Your task to perform on an android device: toggle sleep mode Image 0: 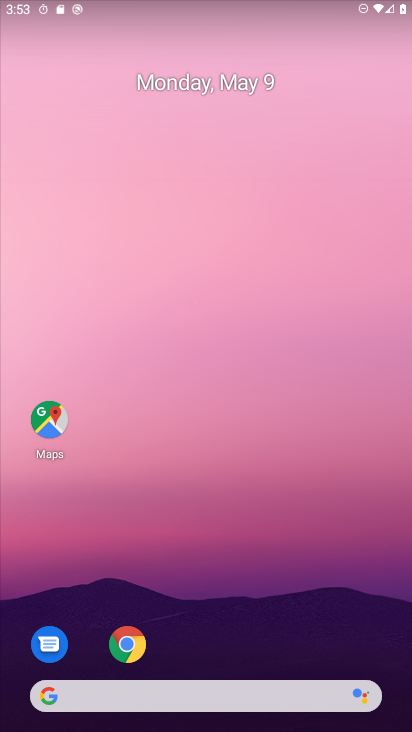
Step 0: drag from (247, 436) to (258, 43)
Your task to perform on an android device: toggle sleep mode Image 1: 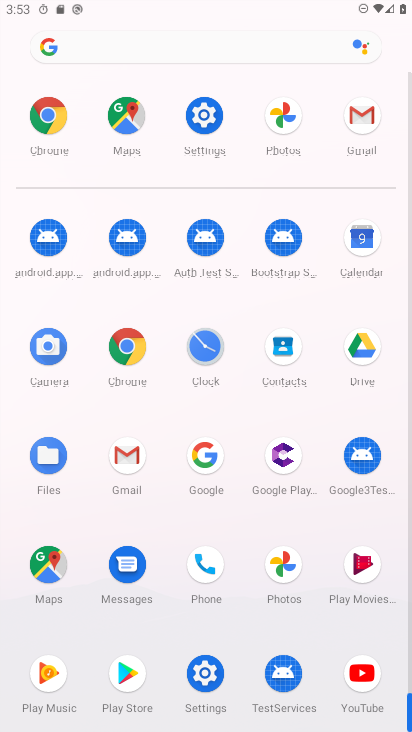
Step 1: drag from (213, 654) to (305, 131)
Your task to perform on an android device: toggle sleep mode Image 2: 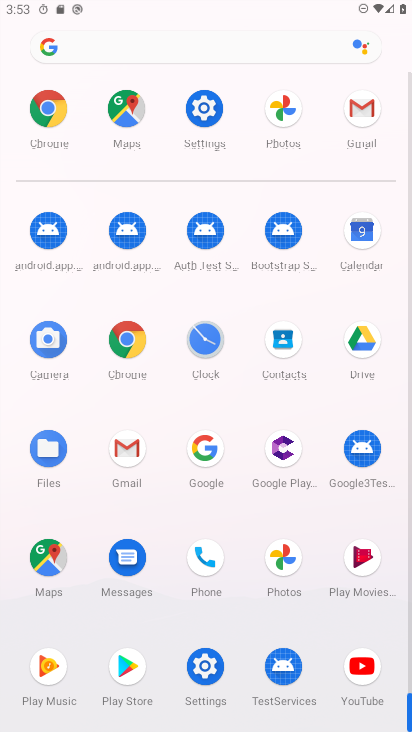
Step 2: click (196, 679)
Your task to perform on an android device: toggle sleep mode Image 3: 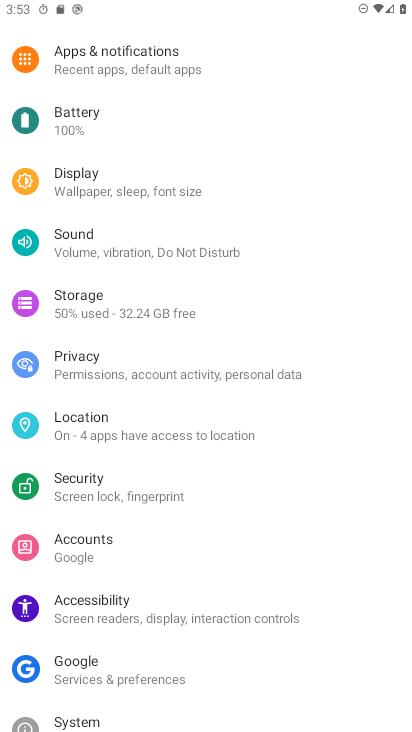
Step 3: task complete